Your task to perform on an android device: Search for seafood restaurants on Google Maps Image 0: 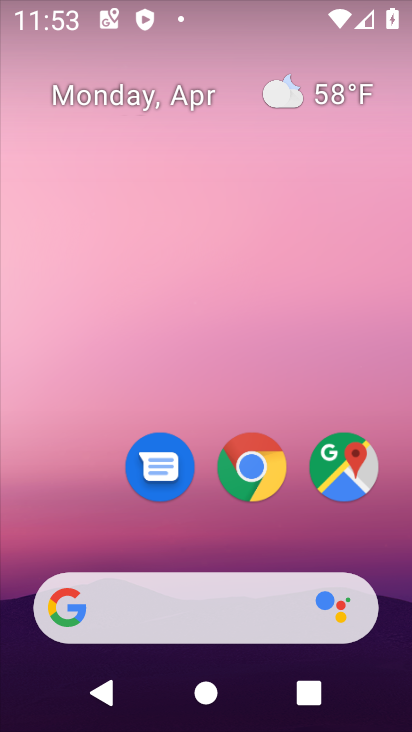
Step 0: click (335, 453)
Your task to perform on an android device: Search for seafood restaurants on Google Maps Image 1: 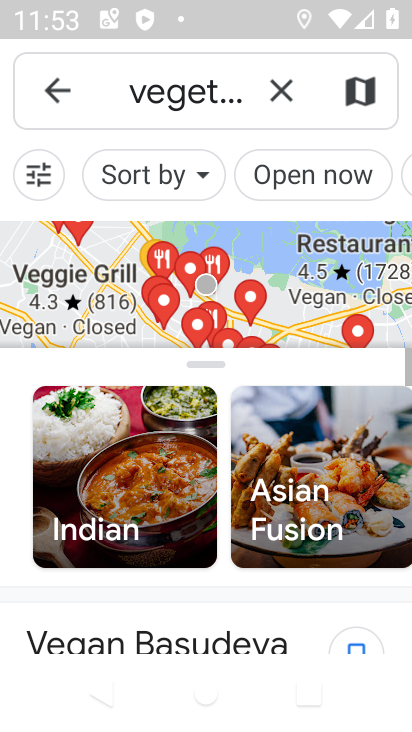
Step 1: click (275, 94)
Your task to perform on an android device: Search for seafood restaurants on Google Maps Image 2: 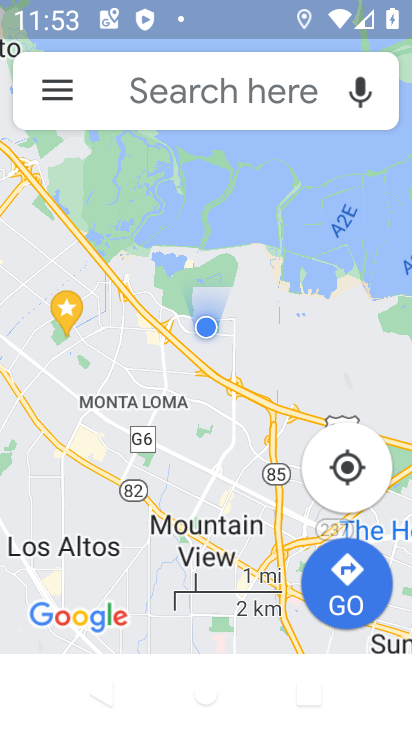
Step 2: click (275, 94)
Your task to perform on an android device: Search for seafood restaurants on Google Maps Image 3: 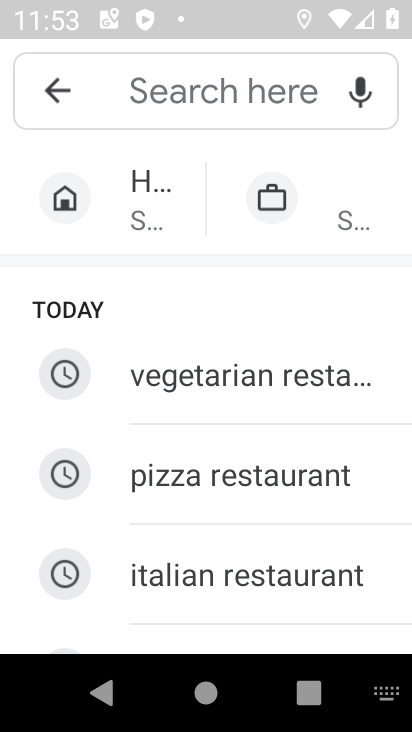
Step 3: type "seafood restaurants"
Your task to perform on an android device: Search for seafood restaurants on Google Maps Image 4: 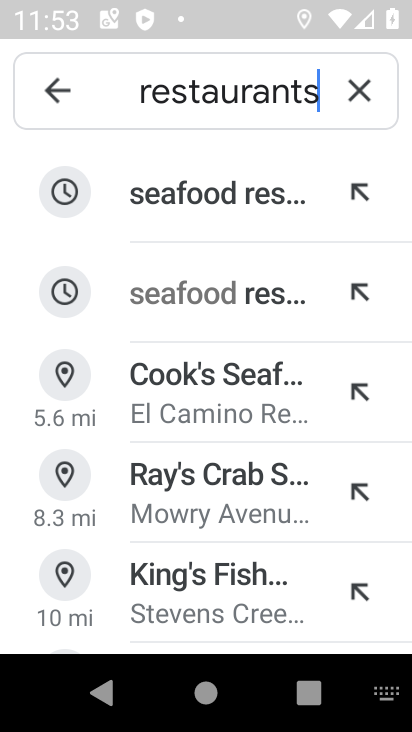
Step 4: click (215, 175)
Your task to perform on an android device: Search for seafood restaurants on Google Maps Image 5: 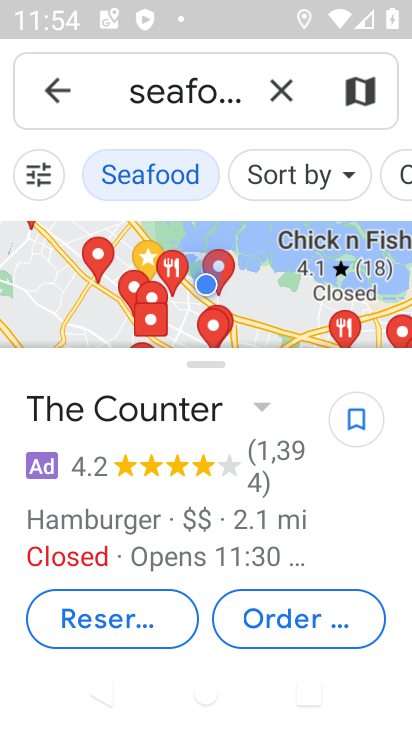
Step 5: task complete